Your task to perform on an android device: delete browsing data in the chrome app Image 0: 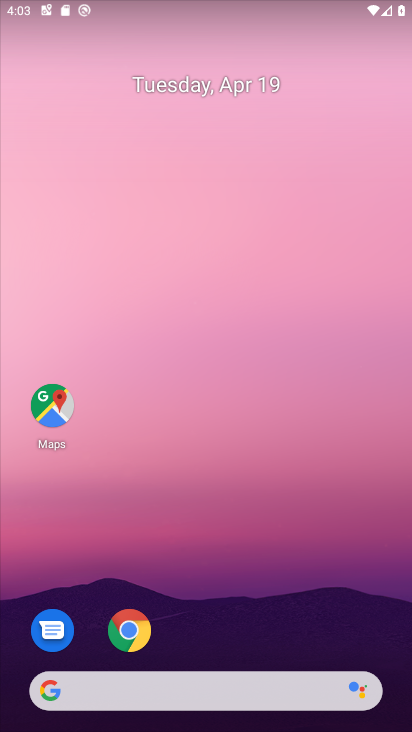
Step 0: click (131, 630)
Your task to perform on an android device: delete browsing data in the chrome app Image 1: 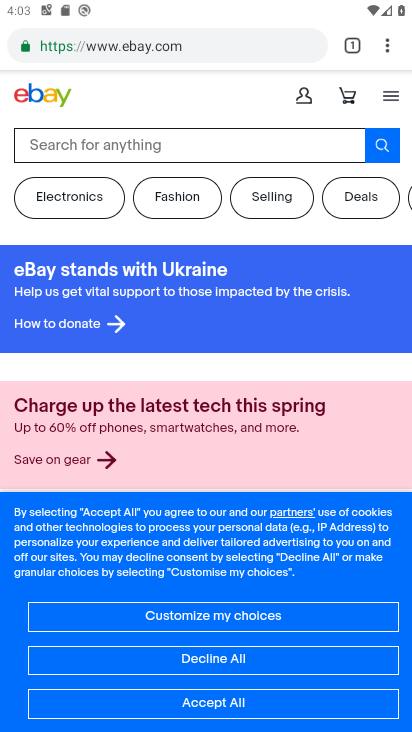
Step 1: drag from (385, 44) to (252, 308)
Your task to perform on an android device: delete browsing data in the chrome app Image 2: 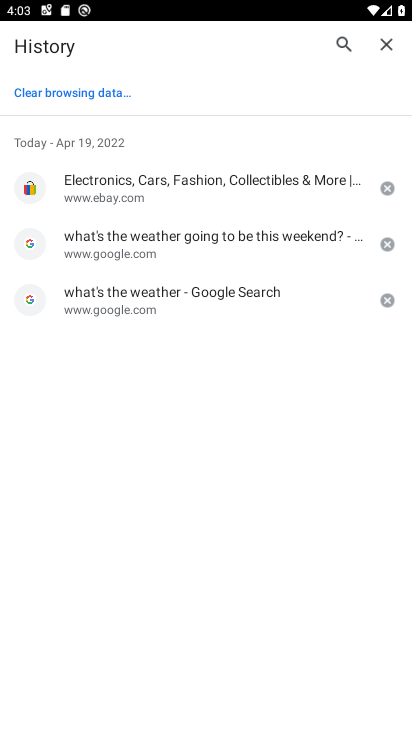
Step 2: click (82, 90)
Your task to perform on an android device: delete browsing data in the chrome app Image 3: 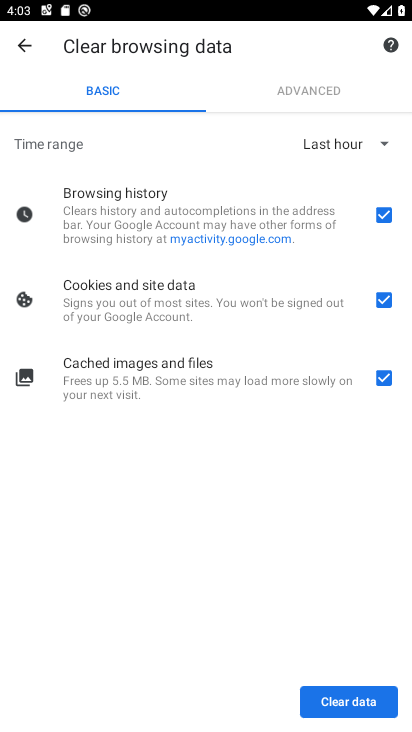
Step 3: click (384, 697)
Your task to perform on an android device: delete browsing data in the chrome app Image 4: 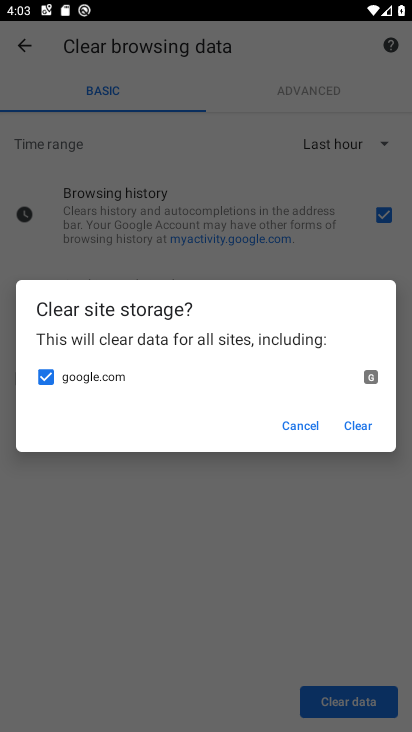
Step 4: click (343, 418)
Your task to perform on an android device: delete browsing data in the chrome app Image 5: 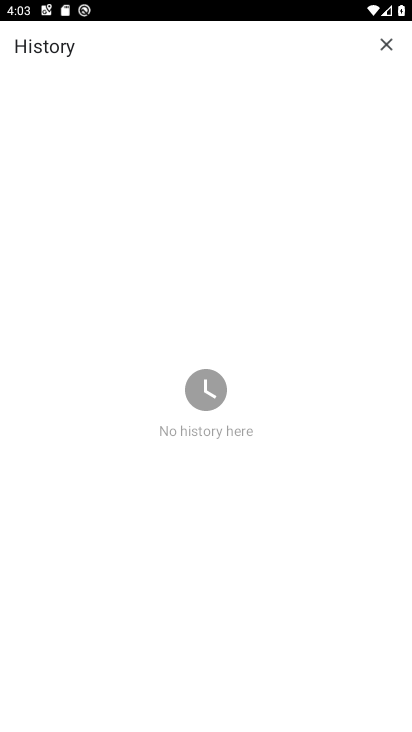
Step 5: task complete